Your task to perform on an android device: check data usage Image 0: 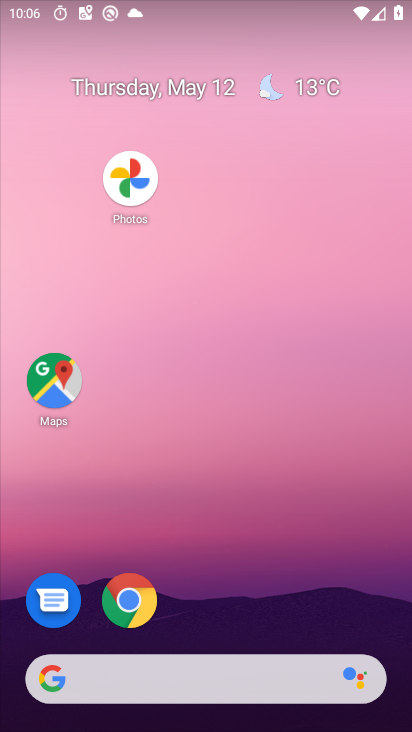
Step 0: drag from (233, 587) to (159, 36)
Your task to perform on an android device: check data usage Image 1: 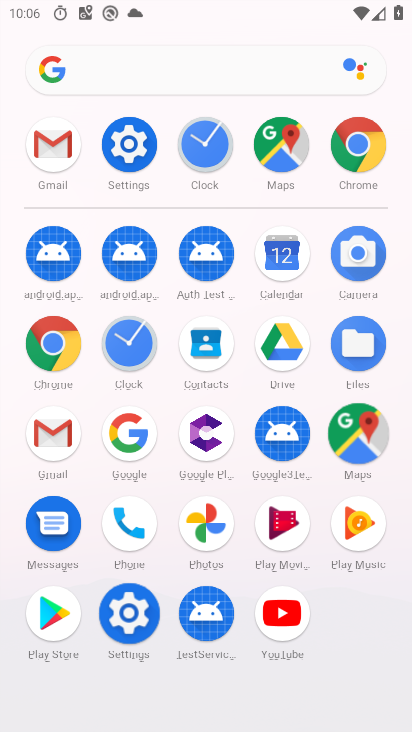
Step 1: drag from (261, 380) to (195, 12)
Your task to perform on an android device: check data usage Image 2: 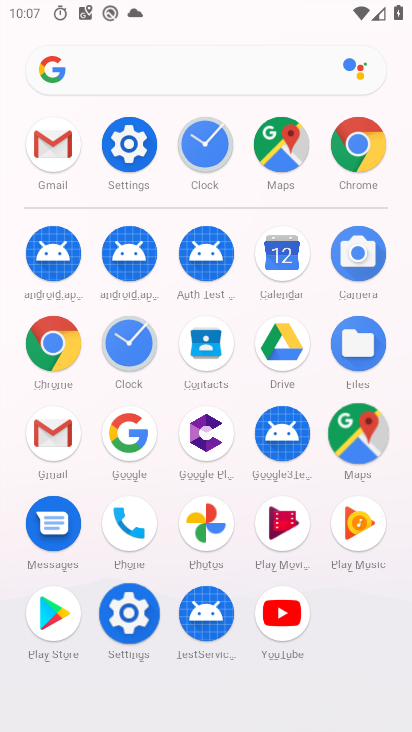
Step 2: click (124, 156)
Your task to perform on an android device: check data usage Image 3: 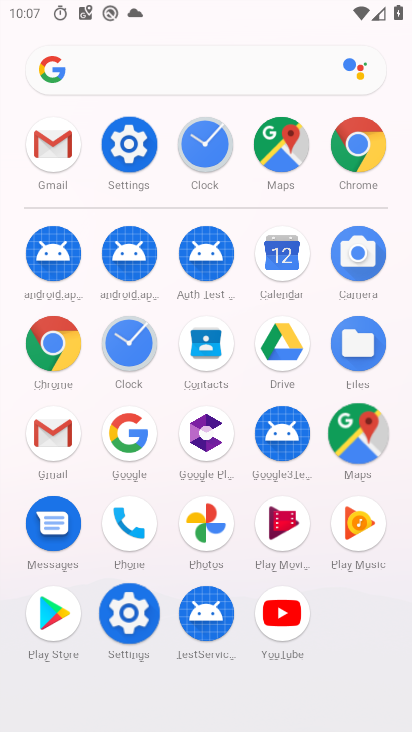
Step 3: click (124, 156)
Your task to perform on an android device: check data usage Image 4: 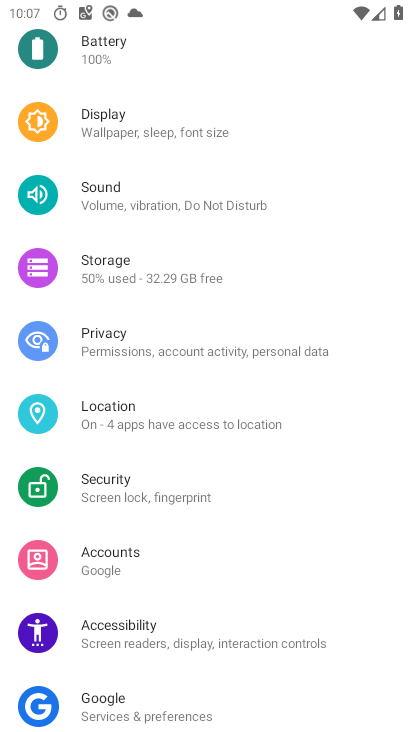
Step 4: click (124, 155)
Your task to perform on an android device: check data usage Image 5: 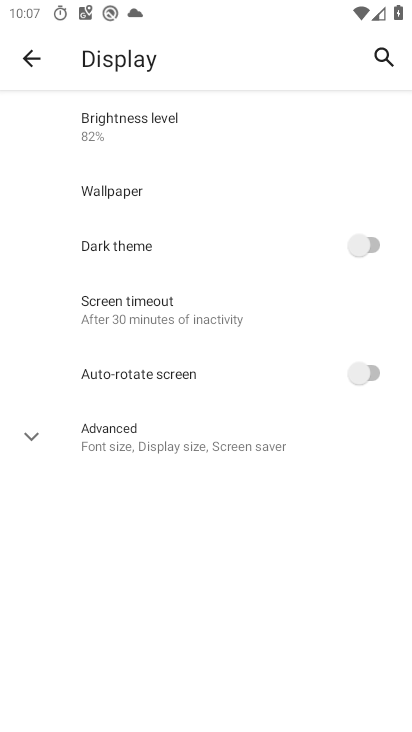
Step 5: click (28, 58)
Your task to perform on an android device: check data usage Image 6: 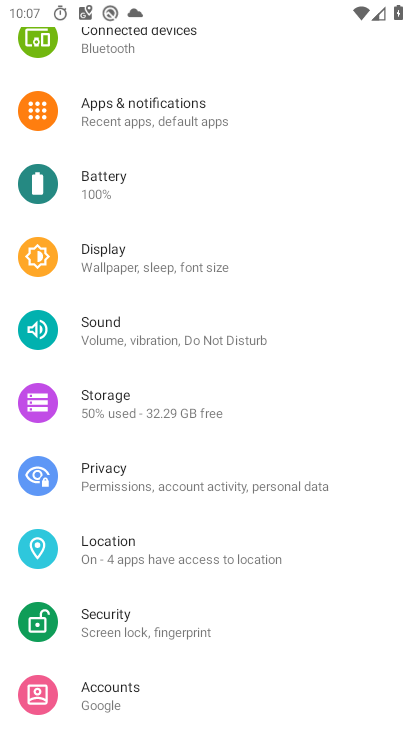
Step 6: drag from (137, 149) to (161, 460)
Your task to perform on an android device: check data usage Image 7: 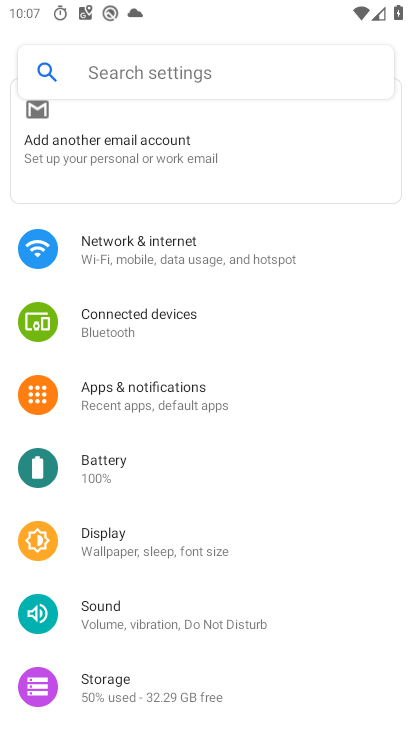
Step 7: drag from (161, 144) to (200, 421)
Your task to perform on an android device: check data usage Image 8: 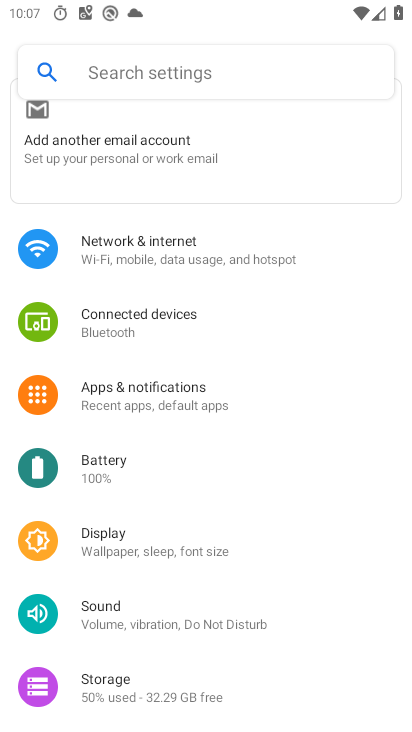
Step 8: drag from (143, 436) to (192, 490)
Your task to perform on an android device: check data usage Image 9: 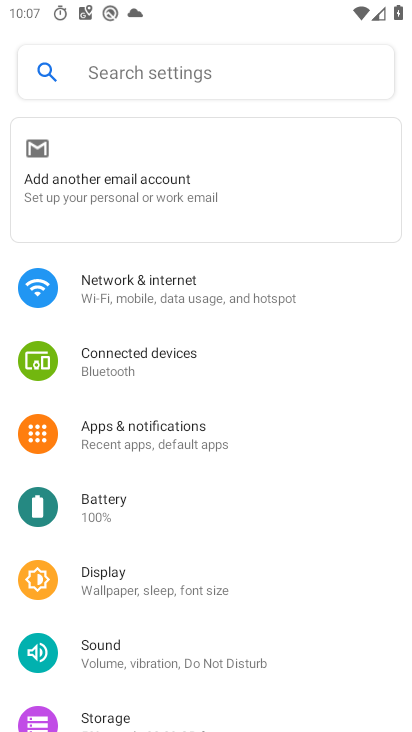
Step 9: click (132, 290)
Your task to perform on an android device: check data usage Image 10: 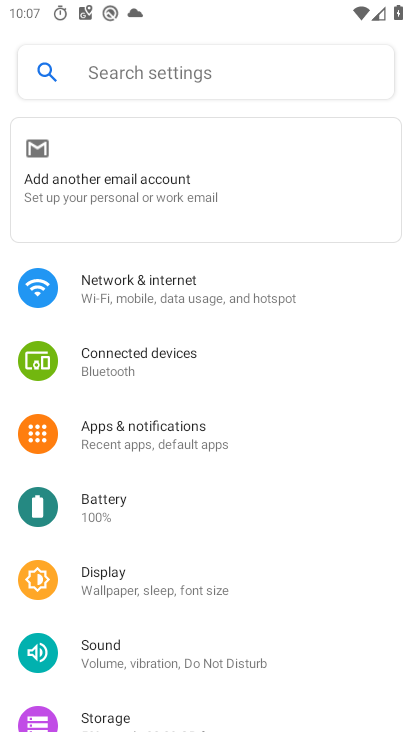
Step 10: click (132, 290)
Your task to perform on an android device: check data usage Image 11: 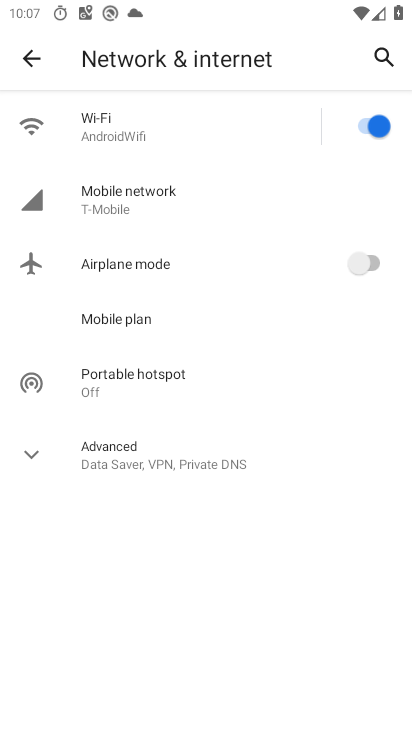
Step 11: task complete